Your task to perform on an android device: Check the news Image 0: 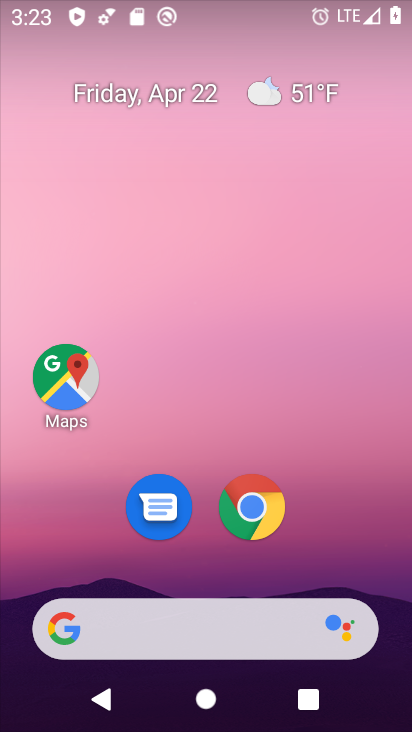
Step 0: drag from (44, 265) to (338, 232)
Your task to perform on an android device: Check the news Image 1: 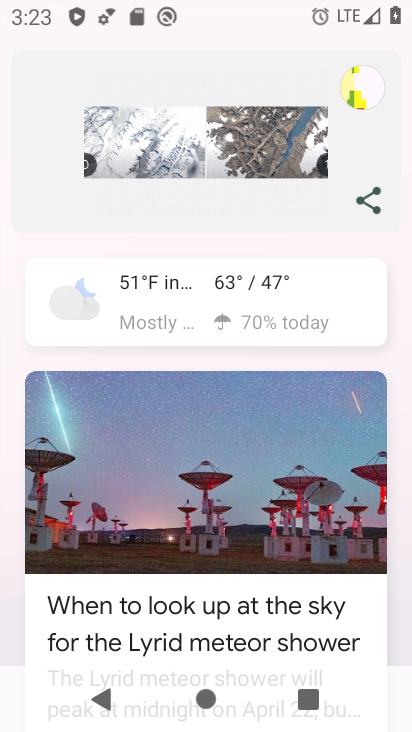
Step 1: task complete